Your task to perform on an android device: What is the news today? Image 0: 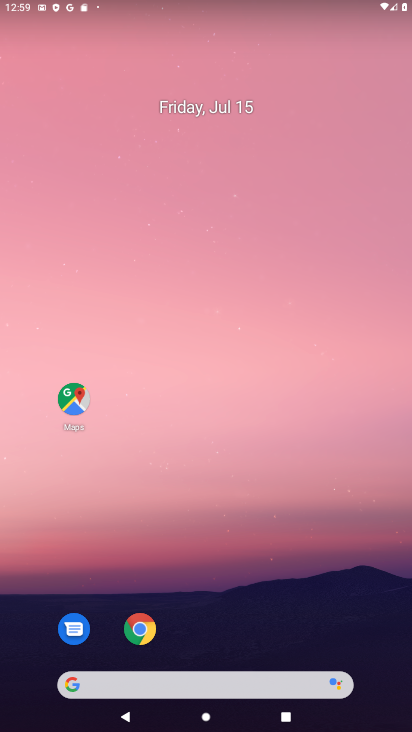
Step 0: drag from (1, 278) to (389, 243)
Your task to perform on an android device: What is the news today? Image 1: 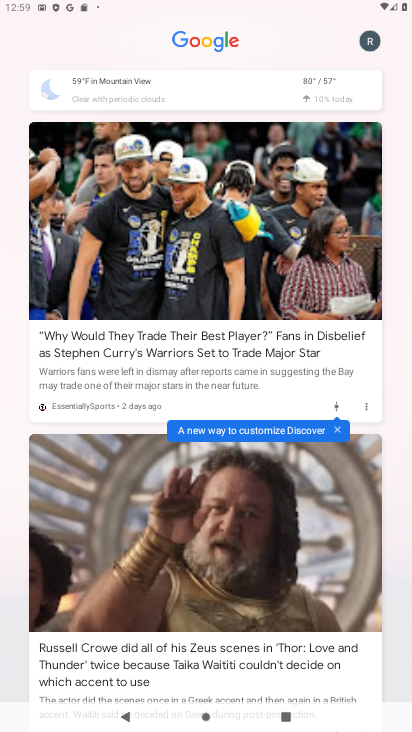
Step 1: task complete